Your task to perform on an android device: Open settings Image 0: 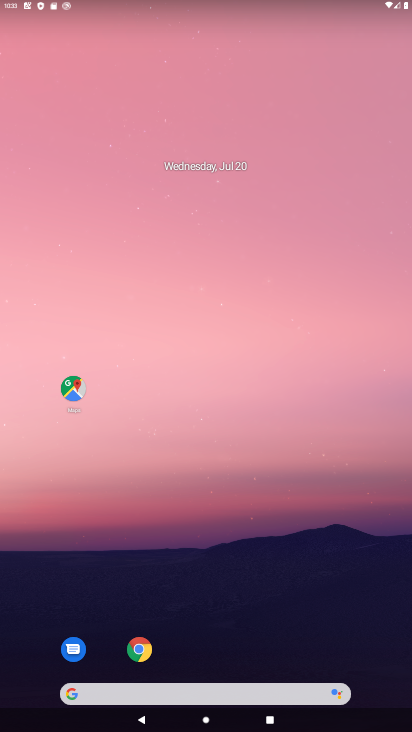
Step 0: drag from (340, 632) to (181, 192)
Your task to perform on an android device: Open settings Image 1: 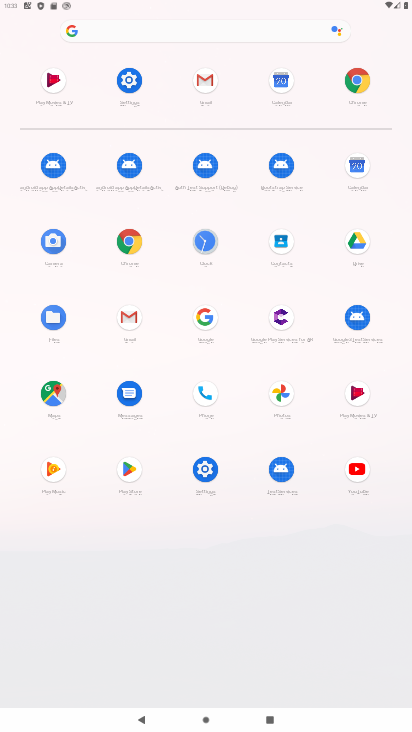
Step 1: click (122, 104)
Your task to perform on an android device: Open settings Image 2: 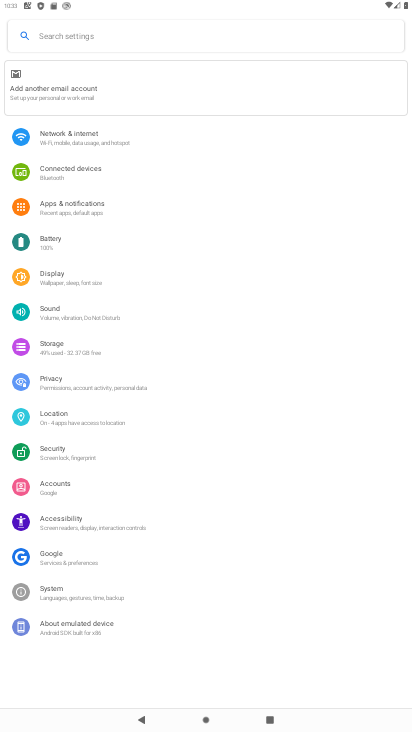
Step 2: task complete